Your task to perform on an android device: Go to Wikipedia Image 0: 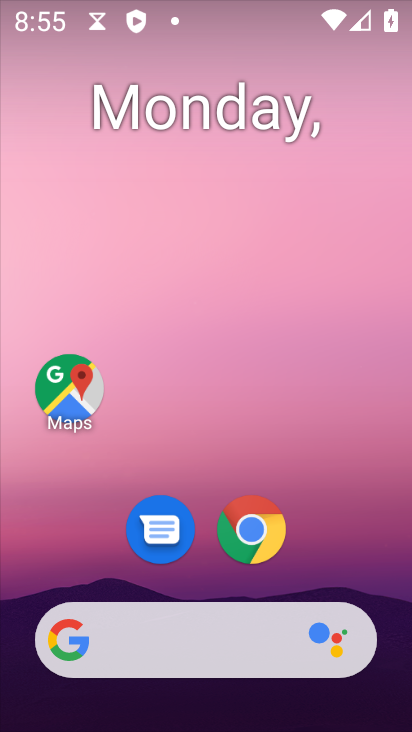
Step 0: drag from (279, 728) to (196, 145)
Your task to perform on an android device: Go to Wikipedia Image 1: 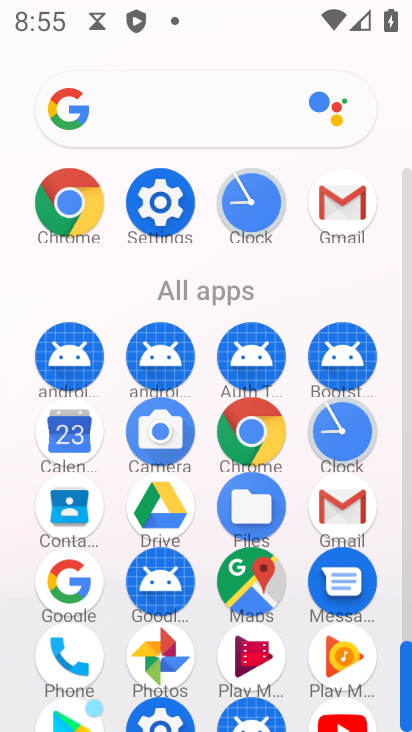
Step 1: click (75, 207)
Your task to perform on an android device: Go to Wikipedia Image 2: 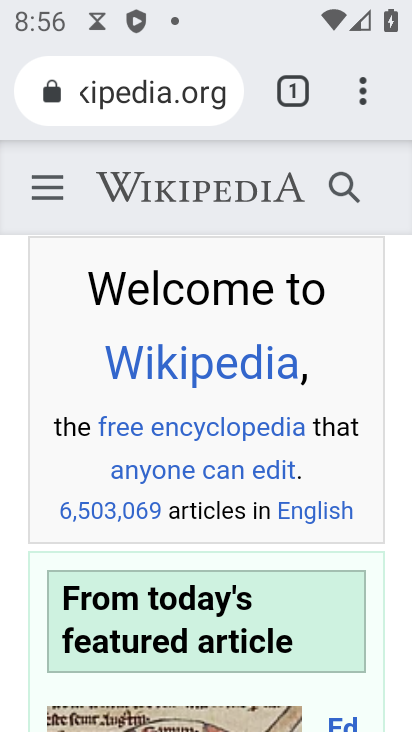
Step 2: task complete